Your task to perform on an android device: remove spam from my inbox in the gmail app Image 0: 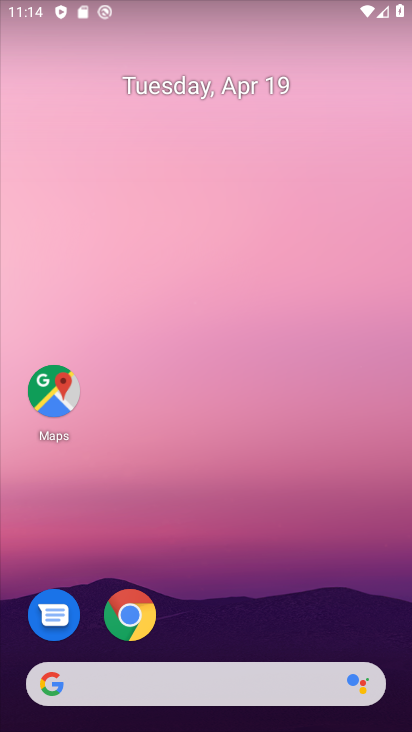
Step 0: drag from (240, 397) to (244, 151)
Your task to perform on an android device: remove spam from my inbox in the gmail app Image 1: 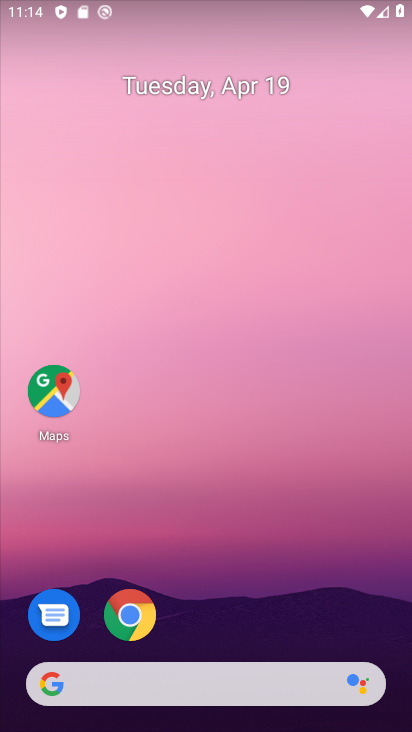
Step 1: drag from (216, 625) to (261, 27)
Your task to perform on an android device: remove spam from my inbox in the gmail app Image 2: 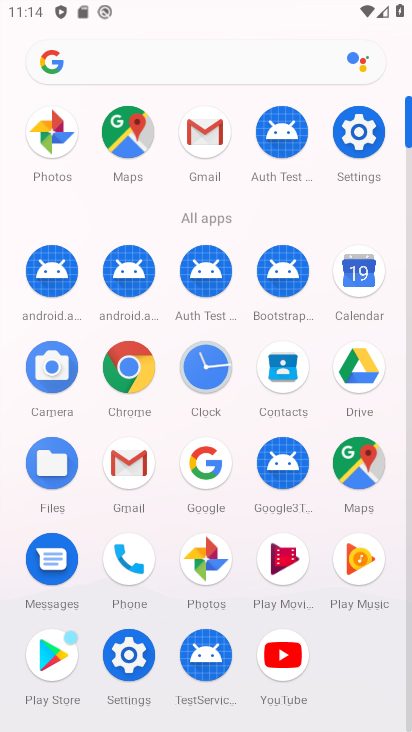
Step 2: click (196, 160)
Your task to perform on an android device: remove spam from my inbox in the gmail app Image 3: 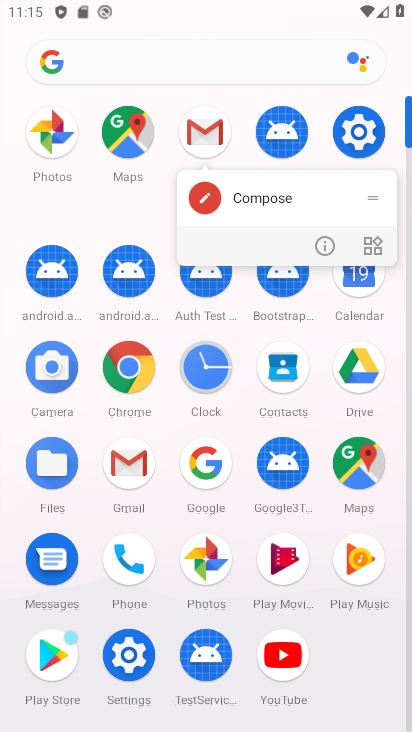
Step 3: click (213, 139)
Your task to perform on an android device: remove spam from my inbox in the gmail app Image 4: 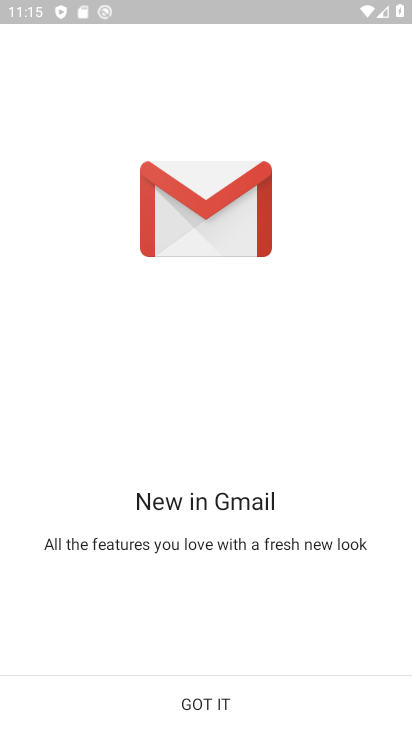
Step 4: click (207, 702)
Your task to perform on an android device: remove spam from my inbox in the gmail app Image 5: 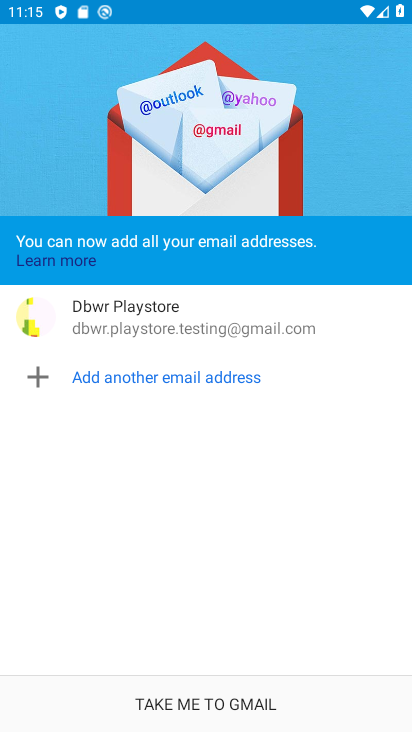
Step 5: click (205, 710)
Your task to perform on an android device: remove spam from my inbox in the gmail app Image 6: 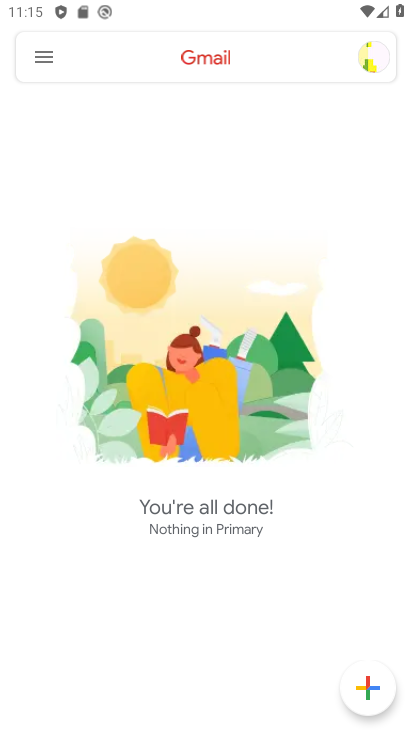
Step 6: click (40, 67)
Your task to perform on an android device: remove spam from my inbox in the gmail app Image 7: 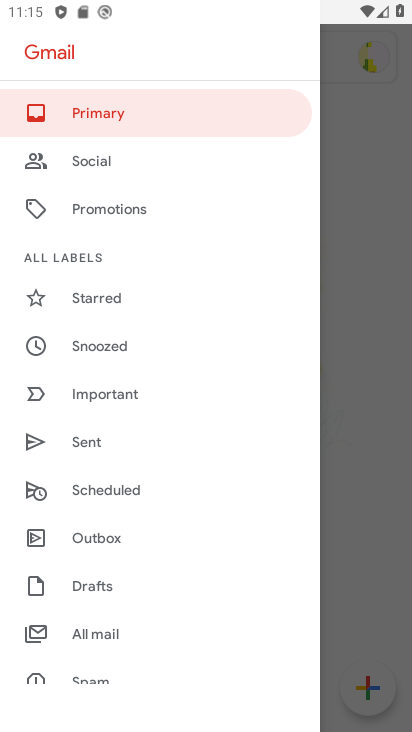
Step 7: click (107, 684)
Your task to perform on an android device: remove spam from my inbox in the gmail app Image 8: 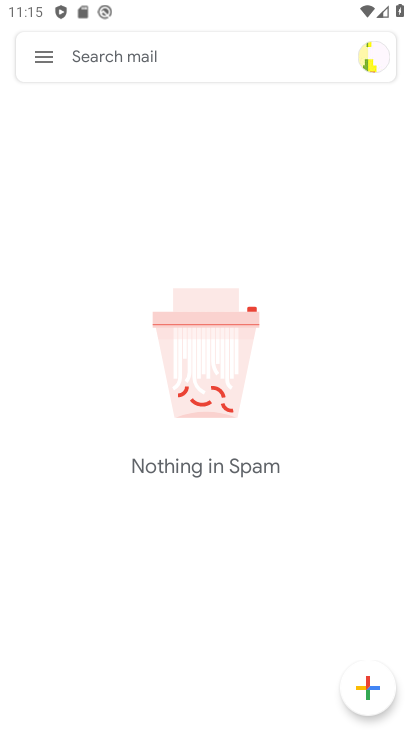
Step 8: task complete